Your task to perform on an android device: open chrome and create a bookmark for the current page Image 0: 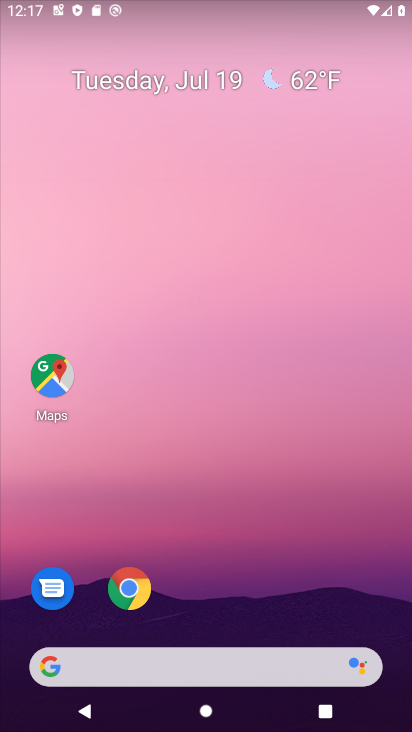
Step 0: click (126, 600)
Your task to perform on an android device: open chrome and create a bookmark for the current page Image 1: 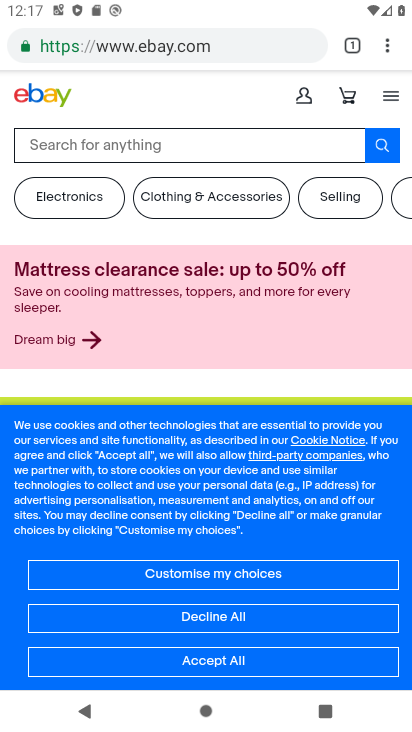
Step 1: click (379, 46)
Your task to perform on an android device: open chrome and create a bookmark for the current page Image 2: 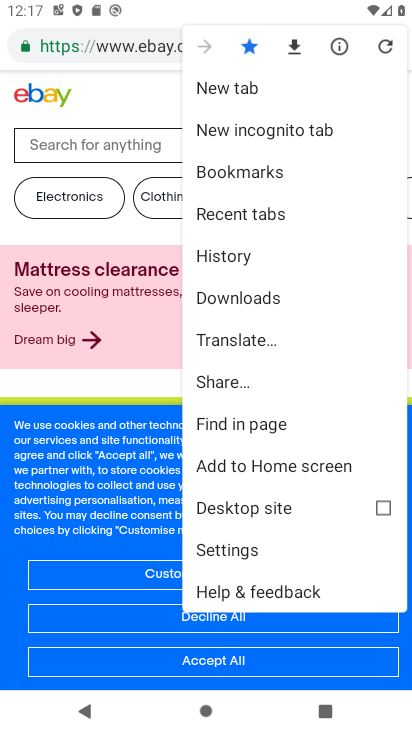
Step 2: task complete